Your task to perform on an android device: Open ESPN.com Image 0: 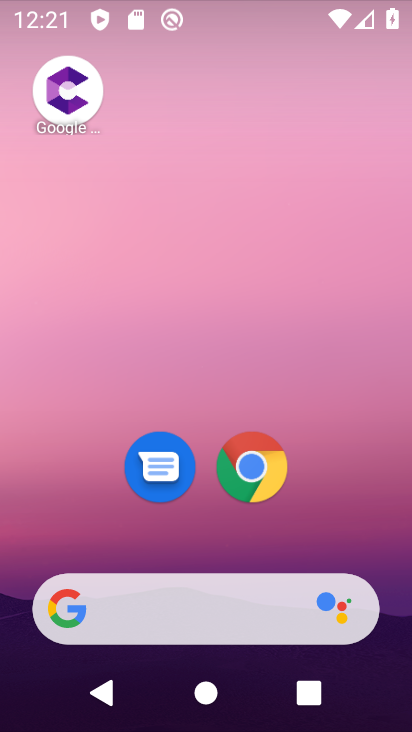
Step 0: press home button
Your task to perform on an android device: Open ESPN.com Image 1: 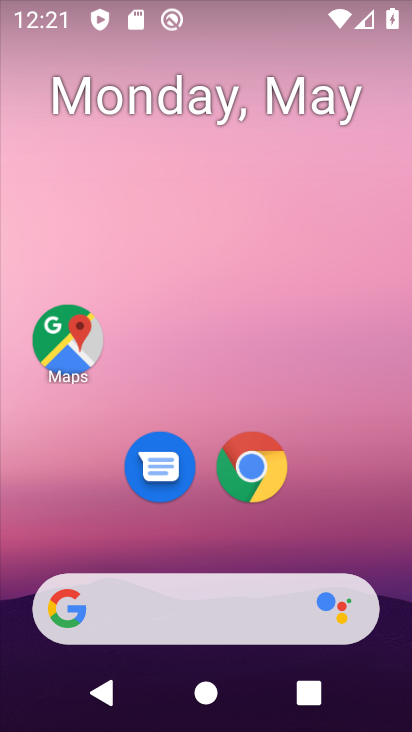
Step 1: drag from (327, 546) to (335, 154)
Your task to perform on an android device: Open ESPN.com Image 2: 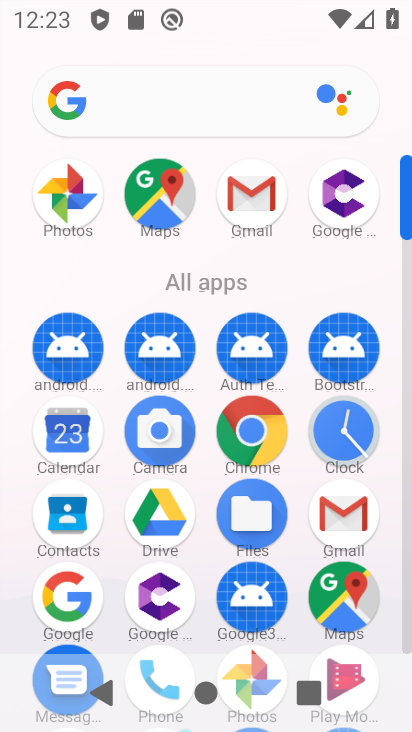
Step 2: click (265, 444)
Your task to perform on an android device: Open ESPN.com Image 3: 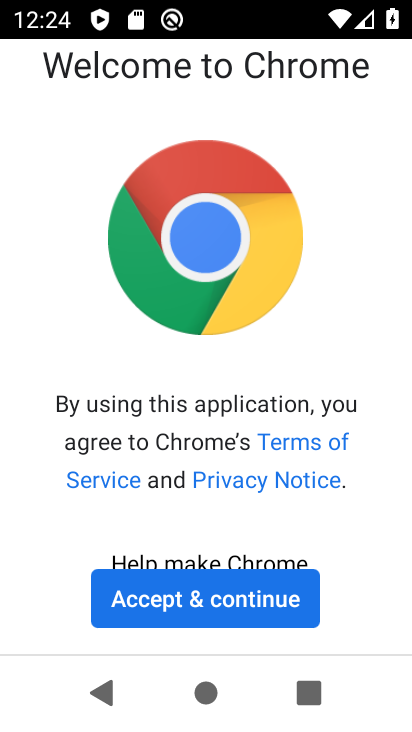
Step 3: click (241, 595)
Your task to perform on an android device: Open ESPN.com Image 4: 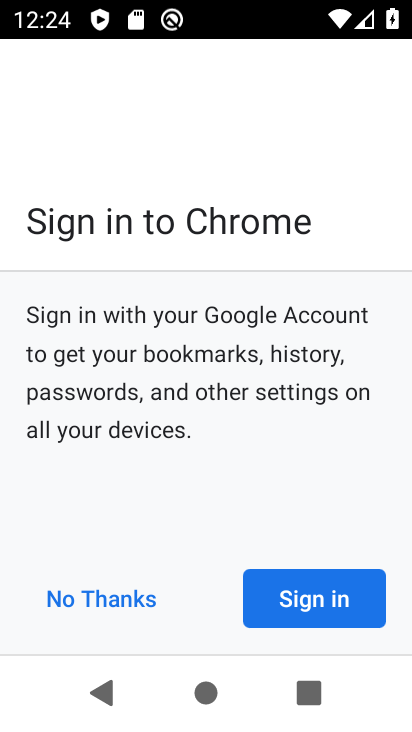
Step 4: click (363, 622)
Your task to perform on an android device: Open ESPN.com Image 5: 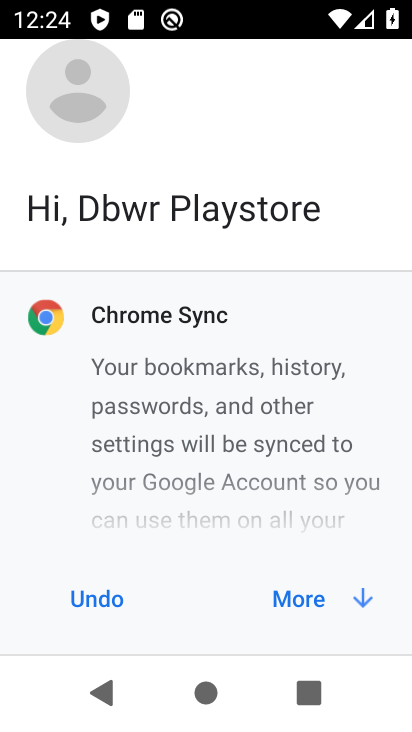
Step 5: click (357, 612)
Your task to perform on an android device: Open ESPN.com Image 6: 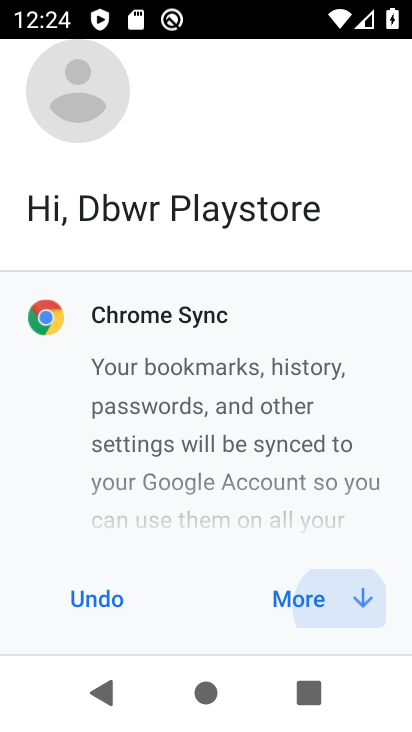
Step 6: click (357, 612)
Your task to perform on an android device: Open ESPN.com Image 7: 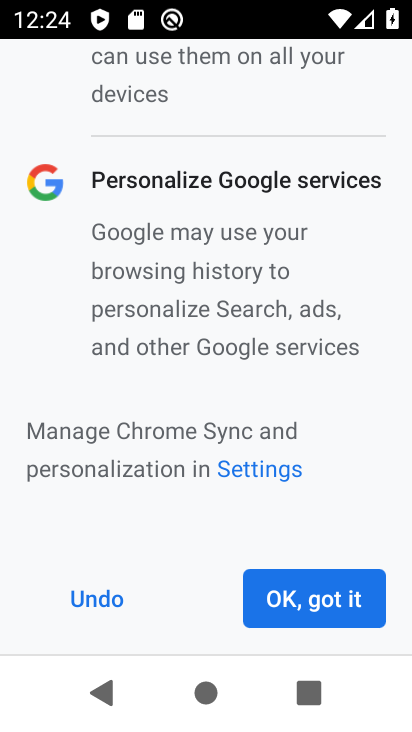
Step 7: click (357, 612)
Your task to perform on an android device: Open ESPN.com Image 8: 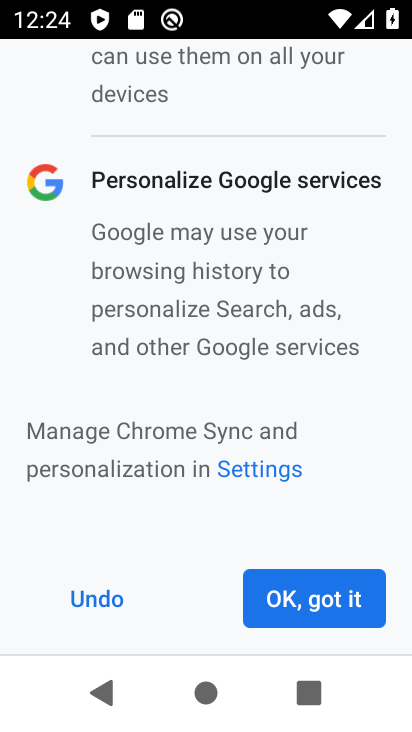
Step 8: click (357, 612)
Your task to perform on an android device: Open ESPN.com Image 9: 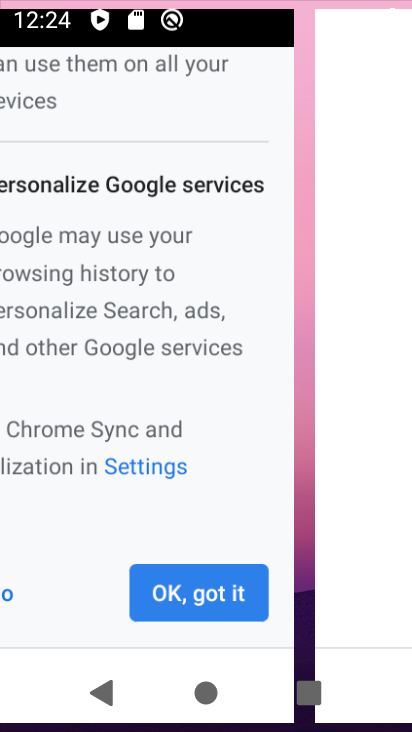
Step 9: click (357, 612)
Your task to perform on an android device: Open ESPN.com Image 10: 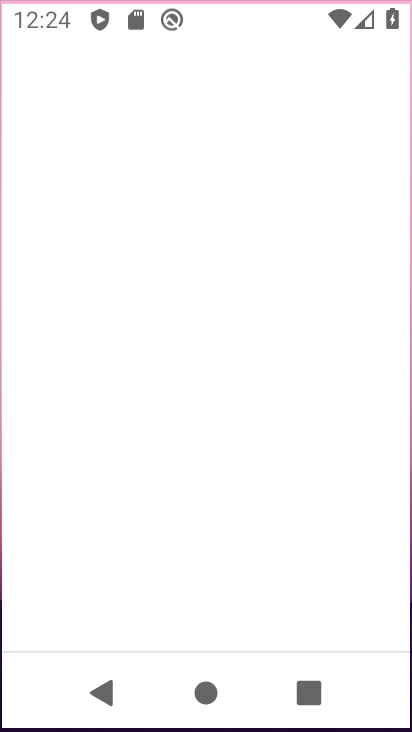
Step 10: click (357, 612)
Your task to perform on an android device: Open ESPN.com Image 11: 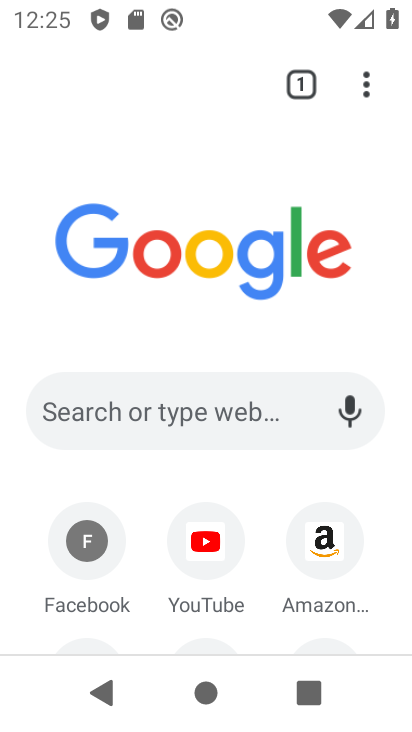
Step 11: click (107, 419)
Your task to perform on an android device: Open ESPN.com Image 12: 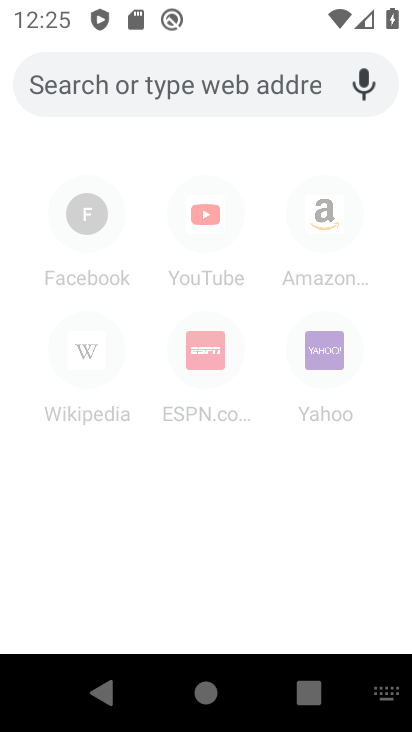
Step 12: type "ESPN.com"
Your task to perform on an android device: Open ESPN.com Image 13: 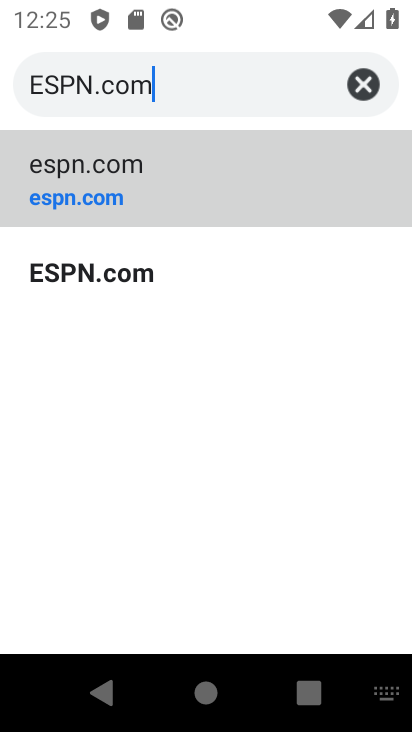
Step 13: type ""
Your task to perform on an android device: Open ESPN.com Image 14: 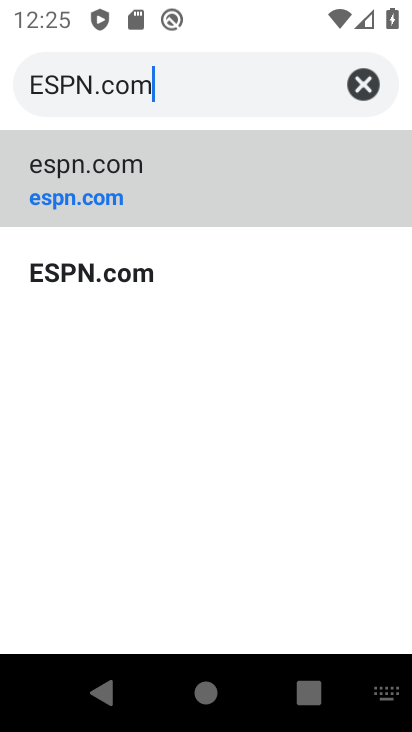
Step 14: click (131, 172)
Your task to perform on an android device: Open ESPN.com Image 15: 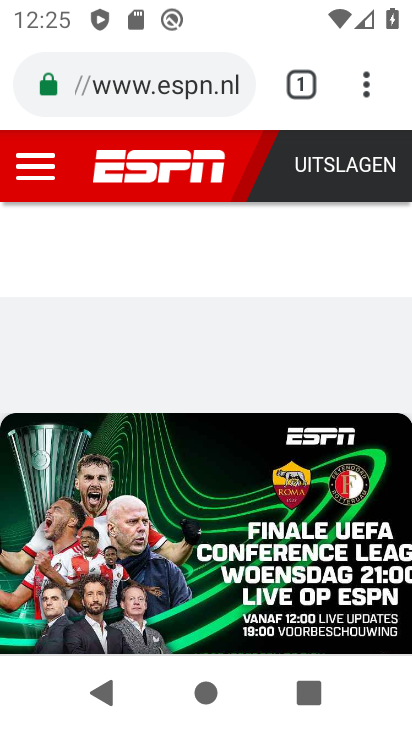
Step 15: task complete